Your task to perform on an android device: What's on my calendar tomorrow? Image 0: 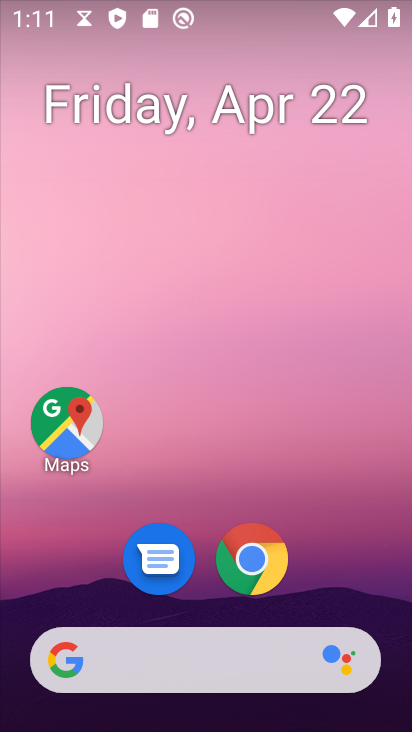
Step 0: drag from (218, 624) to (242, 360)
Your task to perform on an android device: What's on my calendar tomorrow? Image 1: 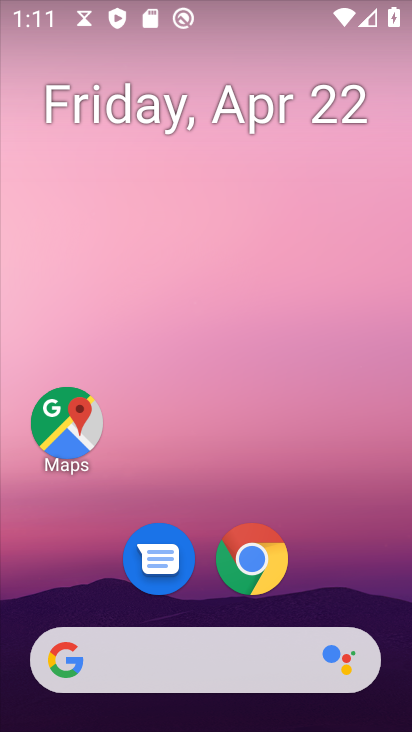
Step 1: drag from (258, 394) to (273, 289)
Your task to perform on an android device: What's on my calendar tomorrow? Image 2: 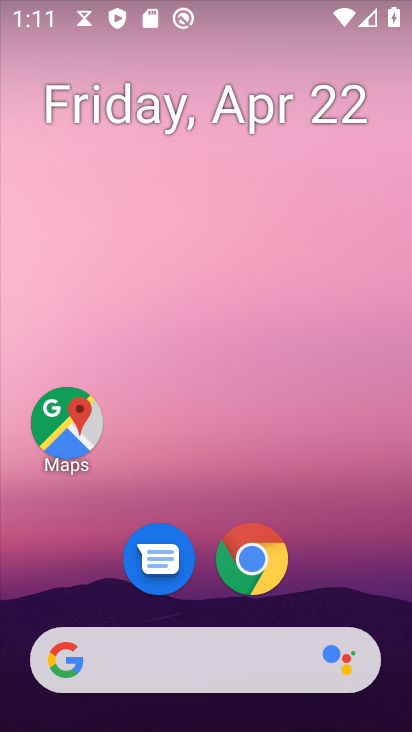
Step 2: drag from (197, 623) to (233, 303)
Your task to perform on an android device: What's on my calendar tomorrow? Image 3: 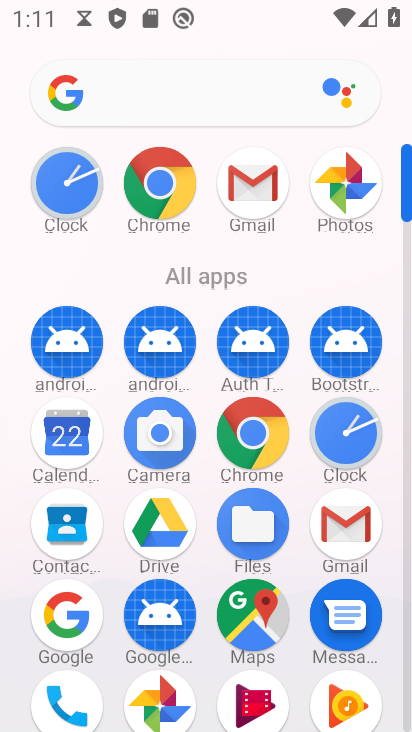
Step 3: click (51, 445)
Your task to perform on an android device: What's on my calendar tomorrow? Image 4: 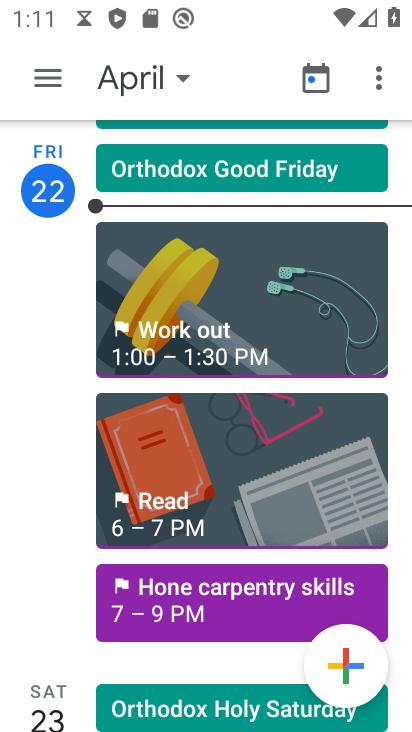
Step 4: task complete